Your task to perform on an android device: When is my next appointment? Image 0: 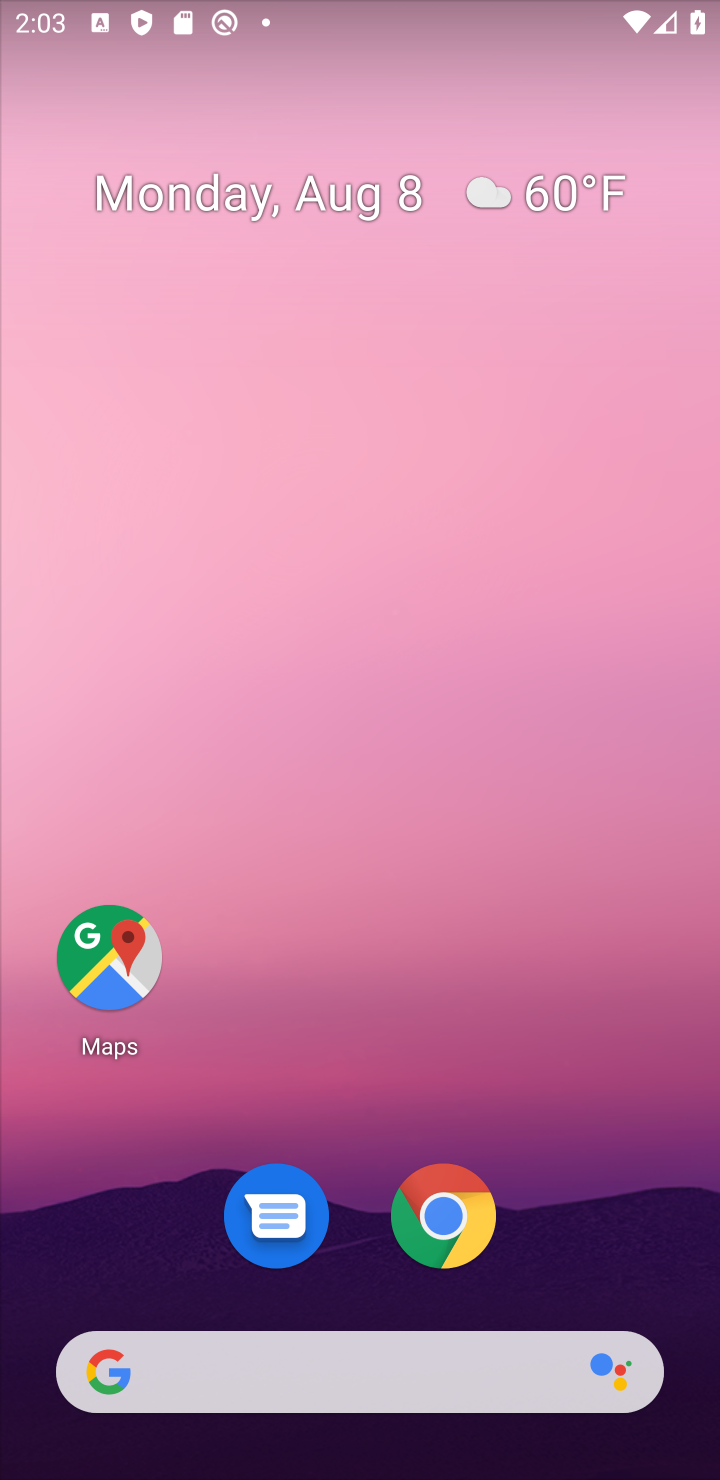
Step 0: drag from (306, 588) to (295, 112)
Your task to perform on an android device: When is my next appointment? Image 1: 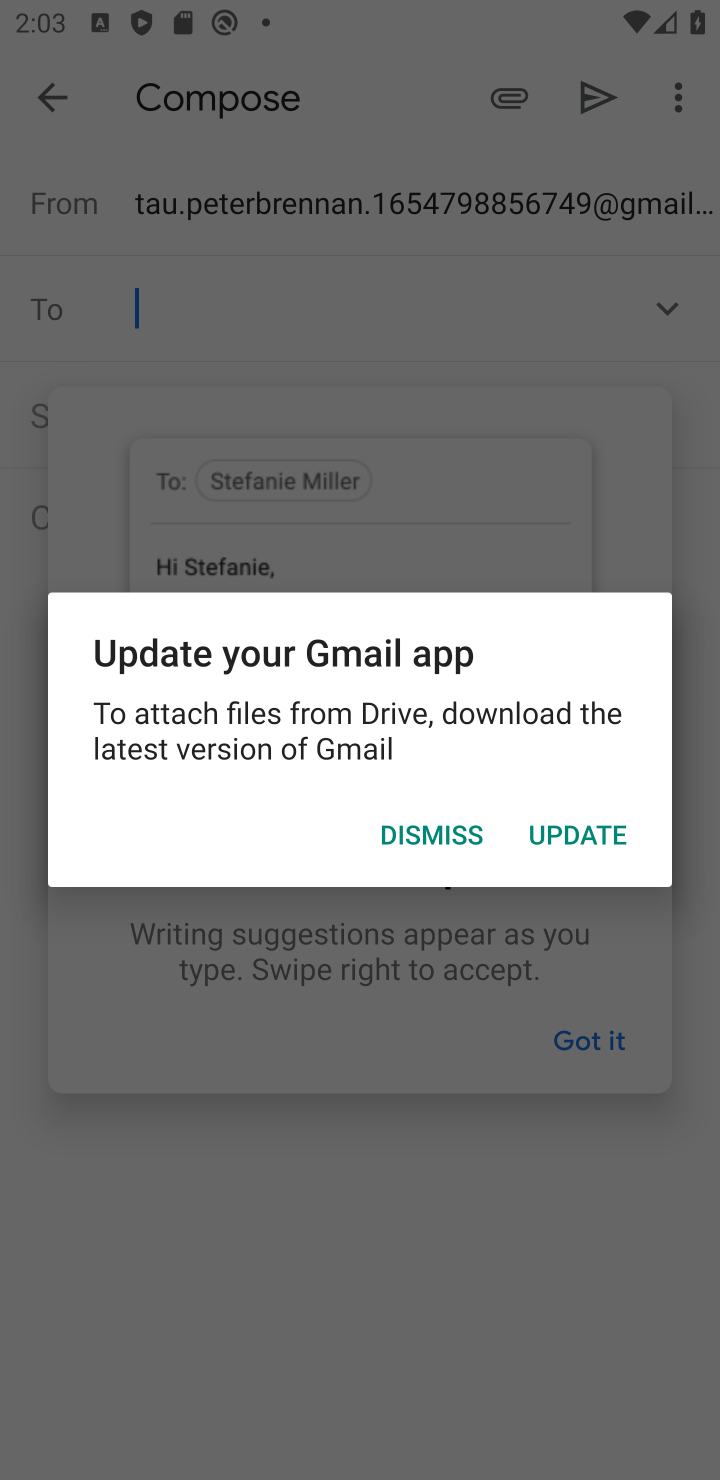
Step 1: drag from (356, 1356) to (481, 239)
Your task to perform on an android device: When is my next appointment? Image 2: 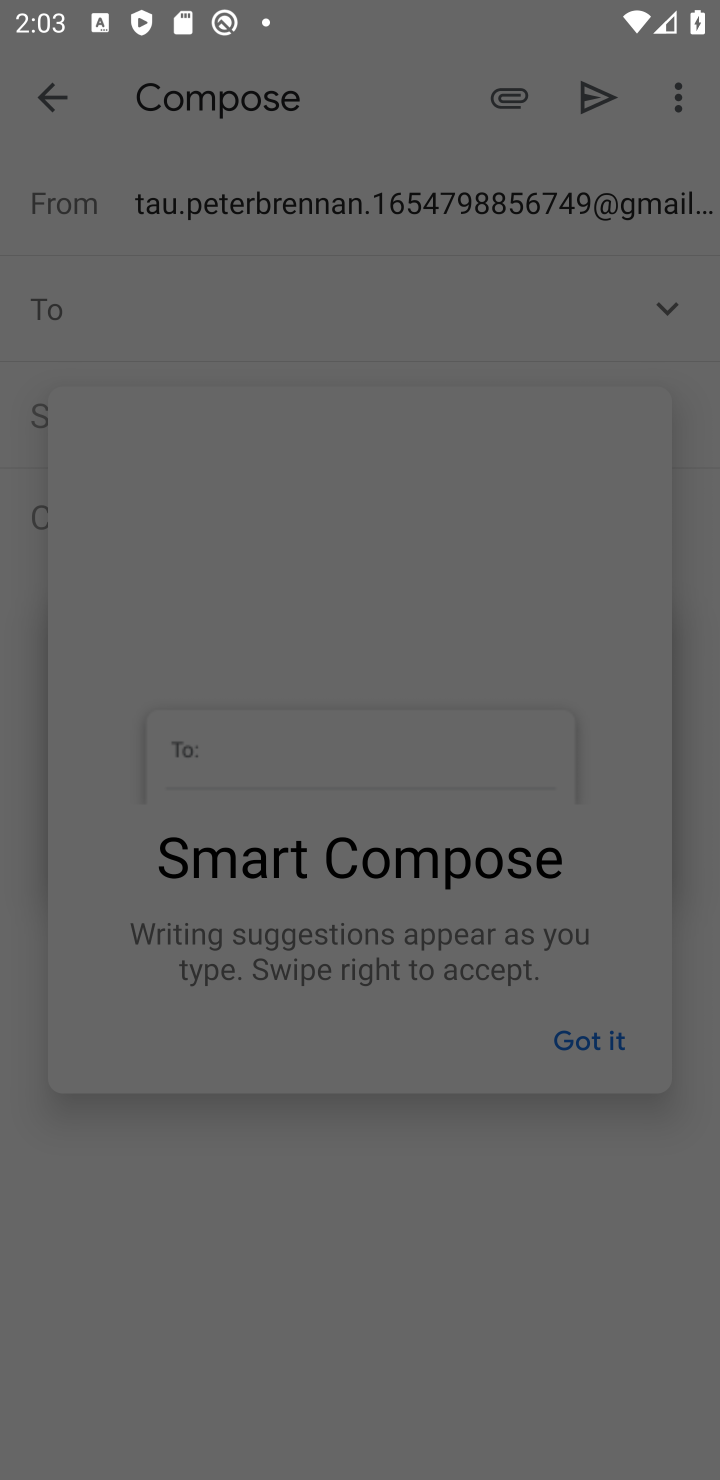
Step 2: press home button
Your task to perform on an android device: When is my next appointment? Image 3: 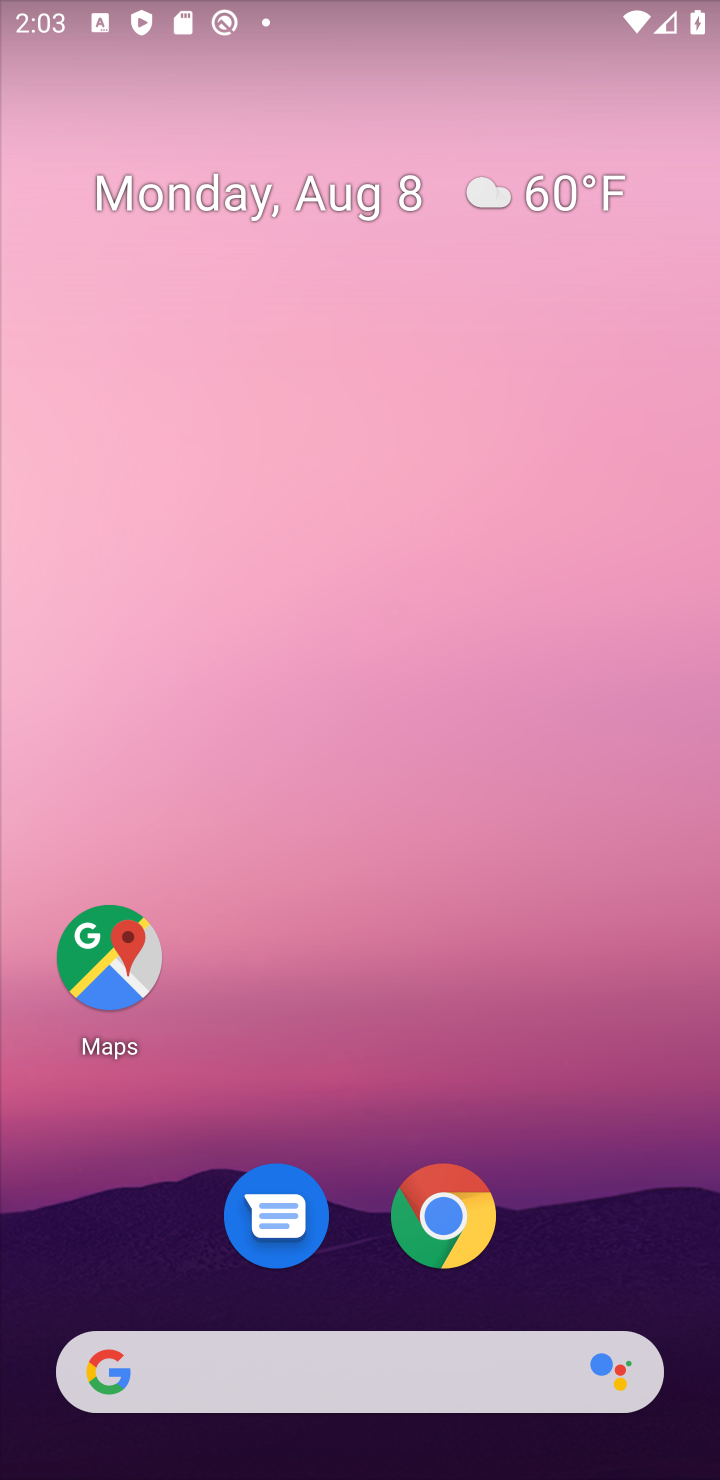
Step 3: drag from (459, 1213) to (309, 30)
Your task to perform on an android device: When is my next appointment? Image 4: 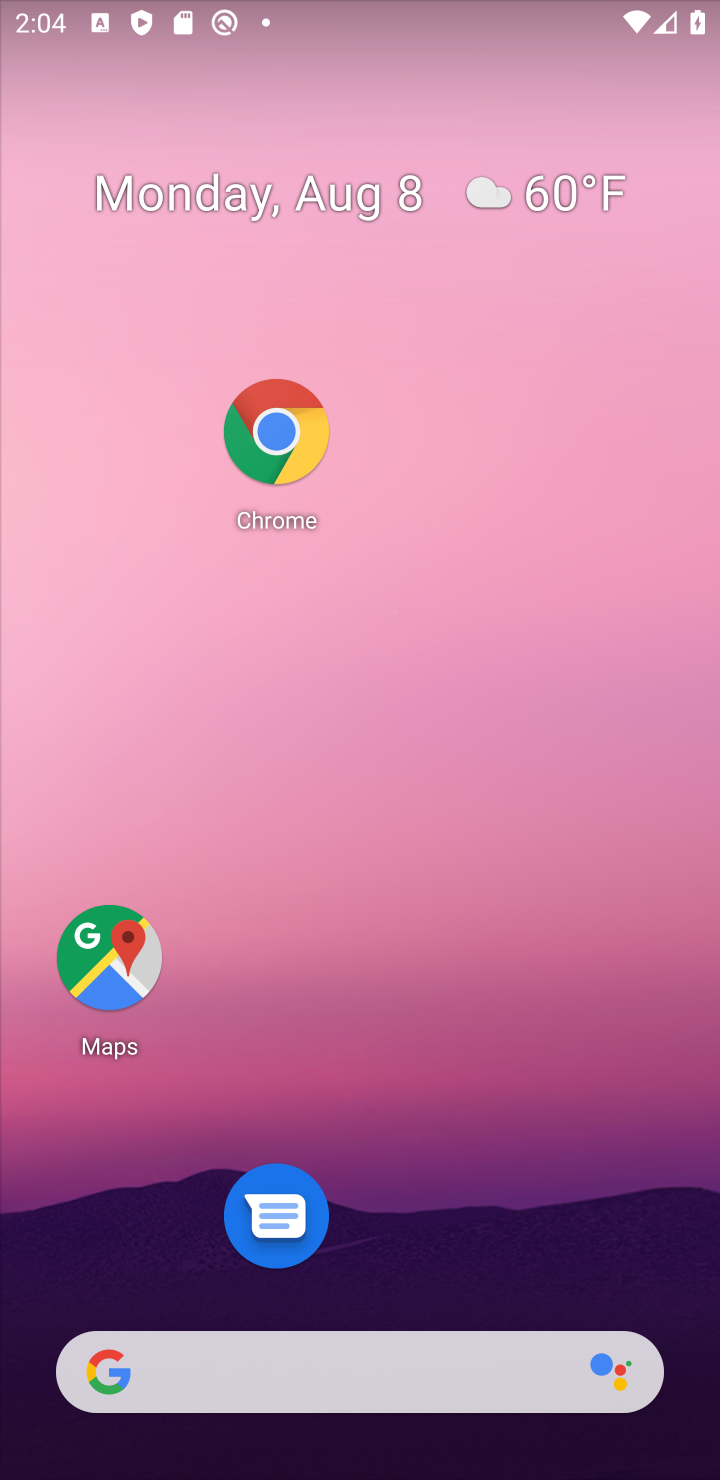
Step 4: drag from (299, 1031) to (228, 0)
Your task to perform on an android device: When is my next appointment? Image 5: 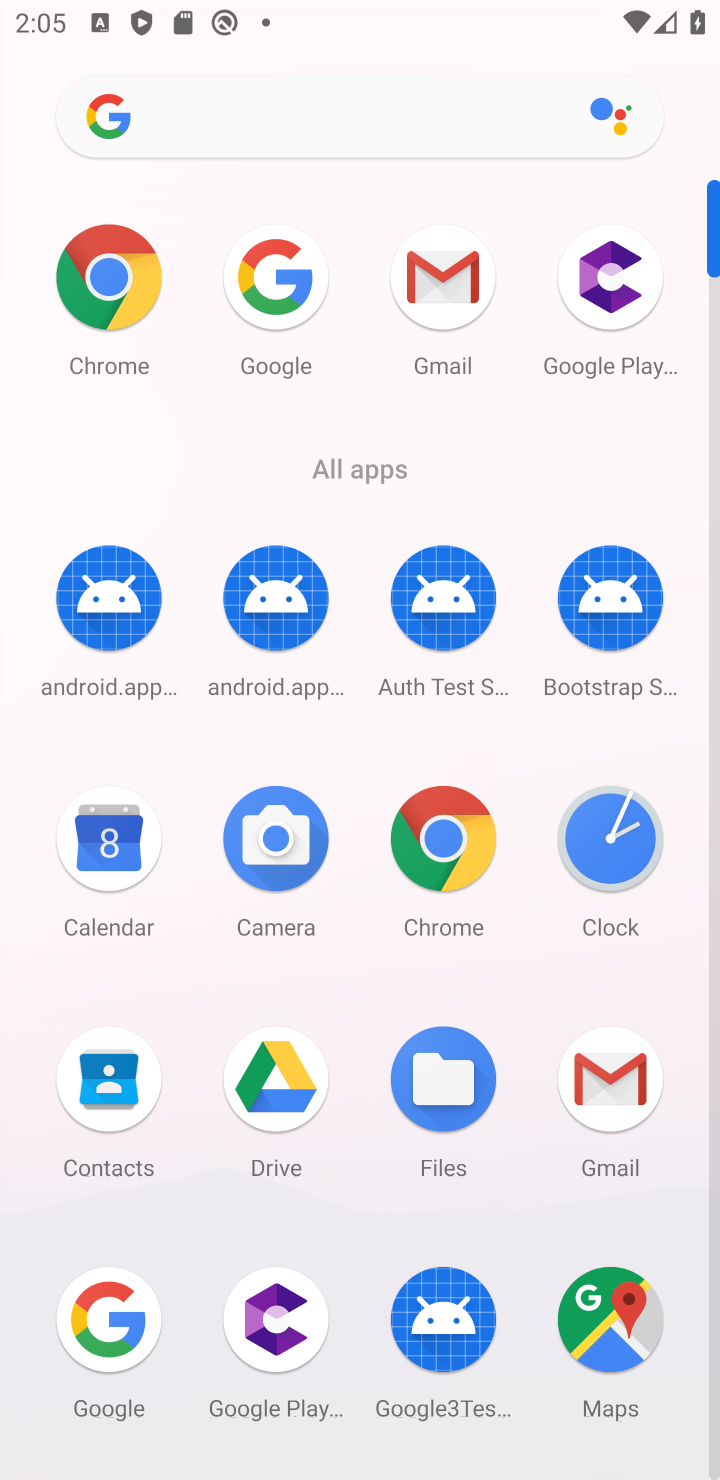
Step 5: click (89, 880)
Your task to perform on an android device: When is my next appointment? Image 6: 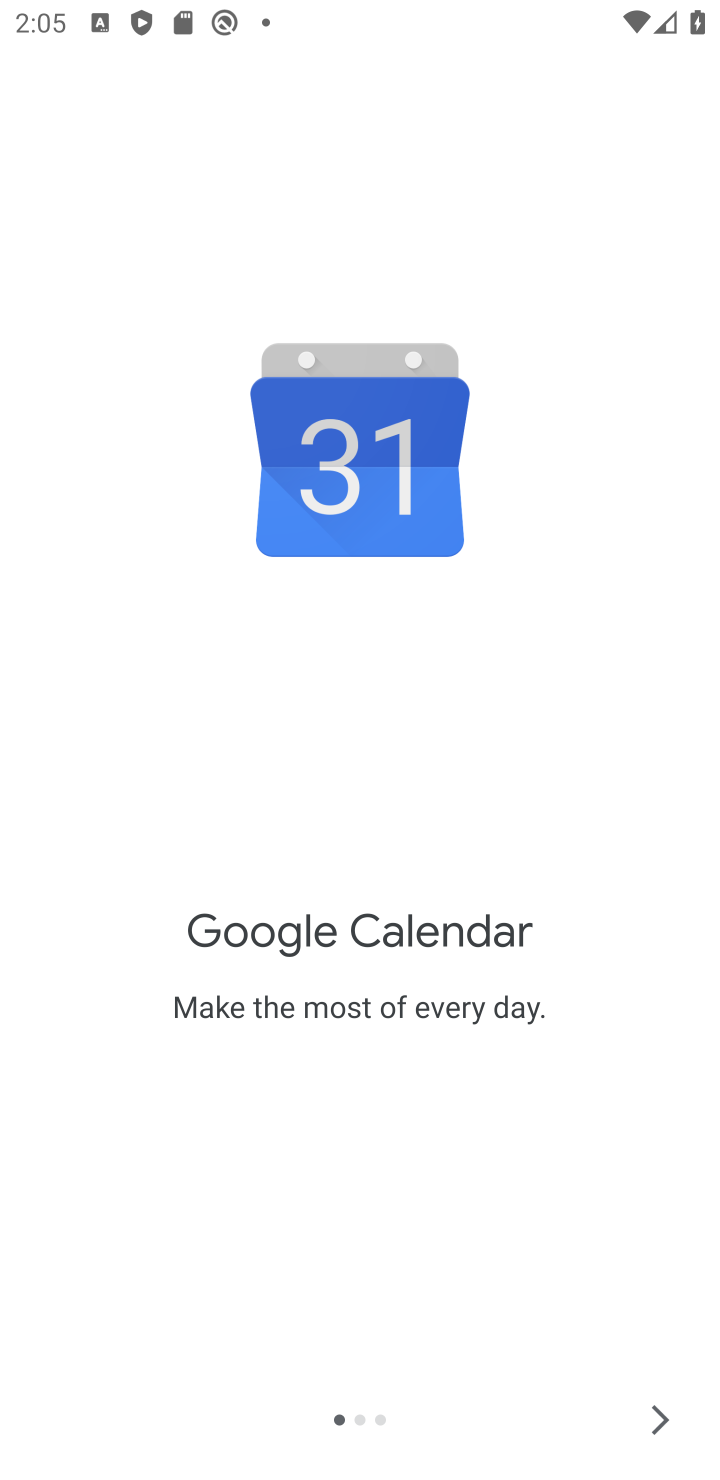
Step 6: click (663, 1416)
Your task to perform on an android device: When is my next appointment? Image 7: 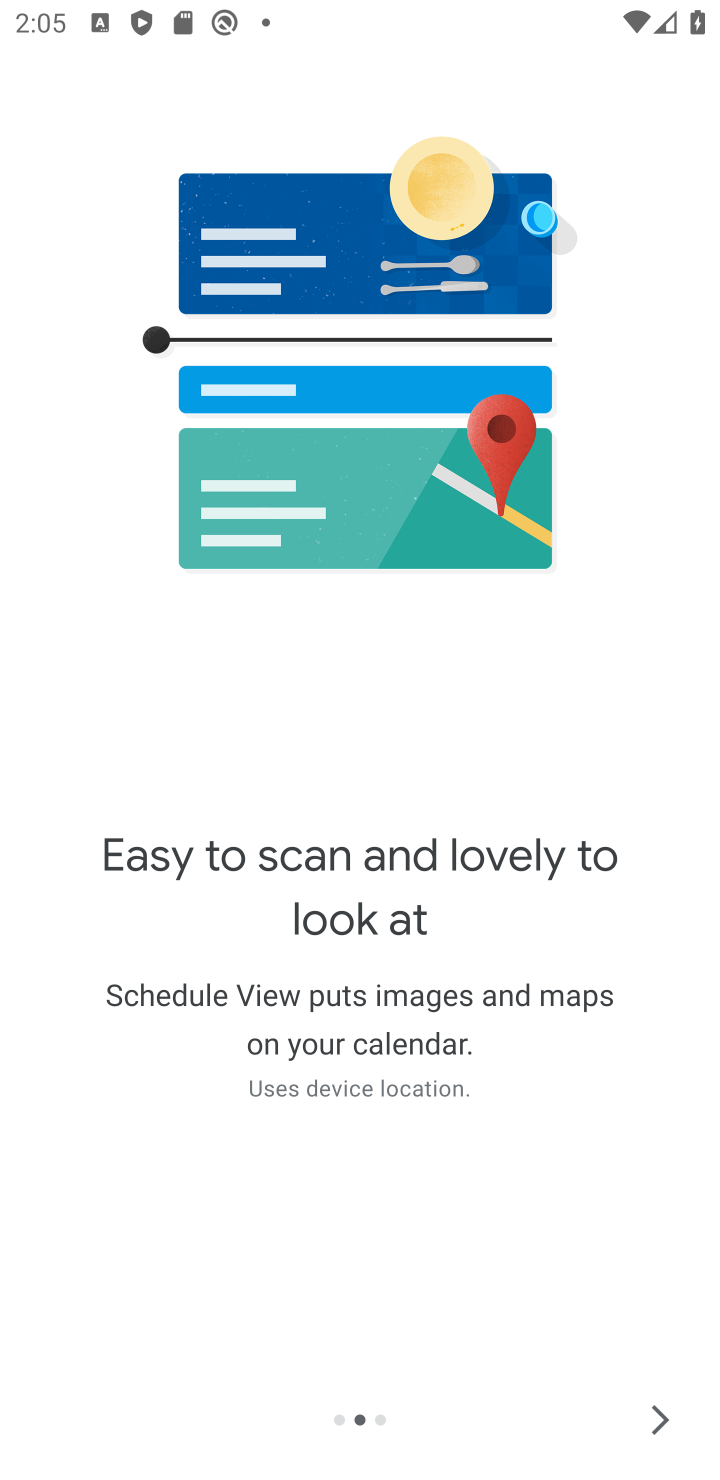
Step 7: click (658, 1421)
Your task to perform on an android device: When is my next appointment? Image 8: 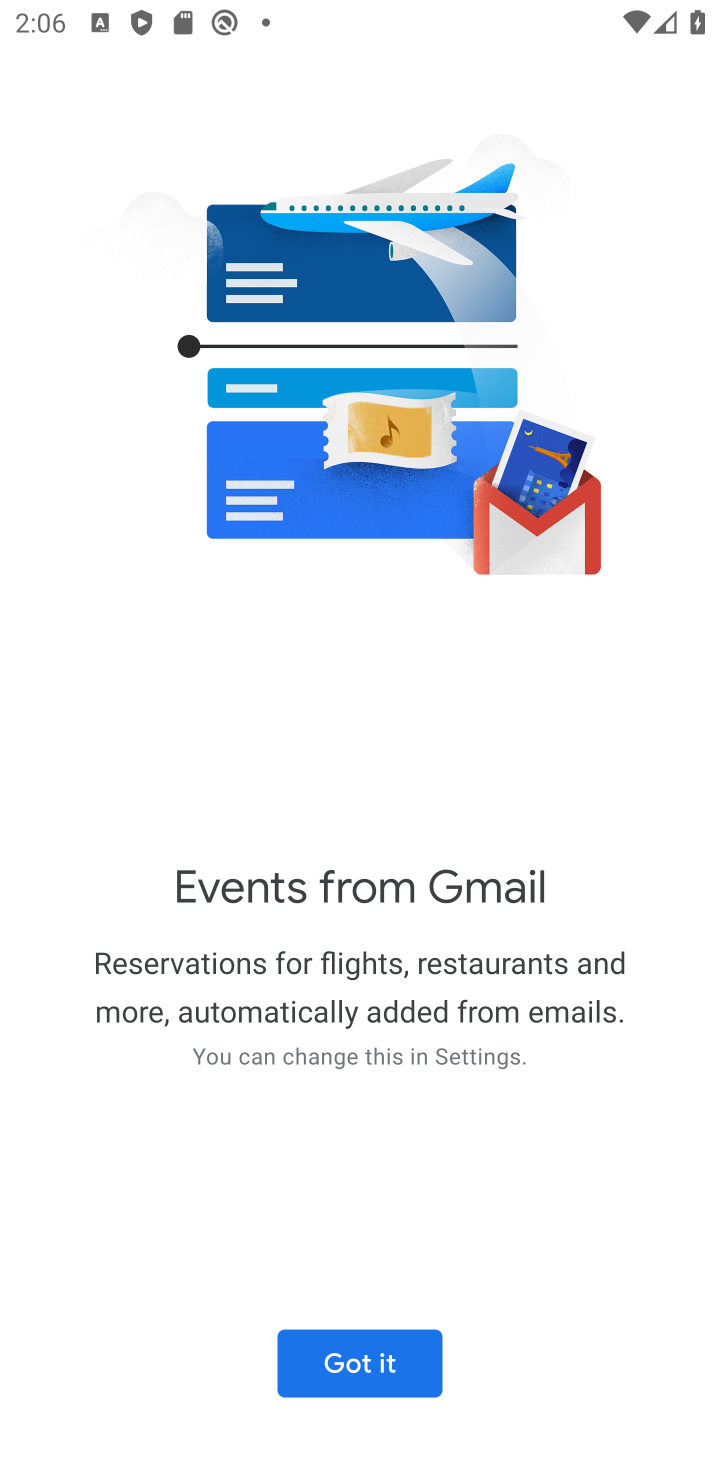
Step 8: click (345, 1369)
Your task to perform on an android device: When is my next appointment? Image 9: 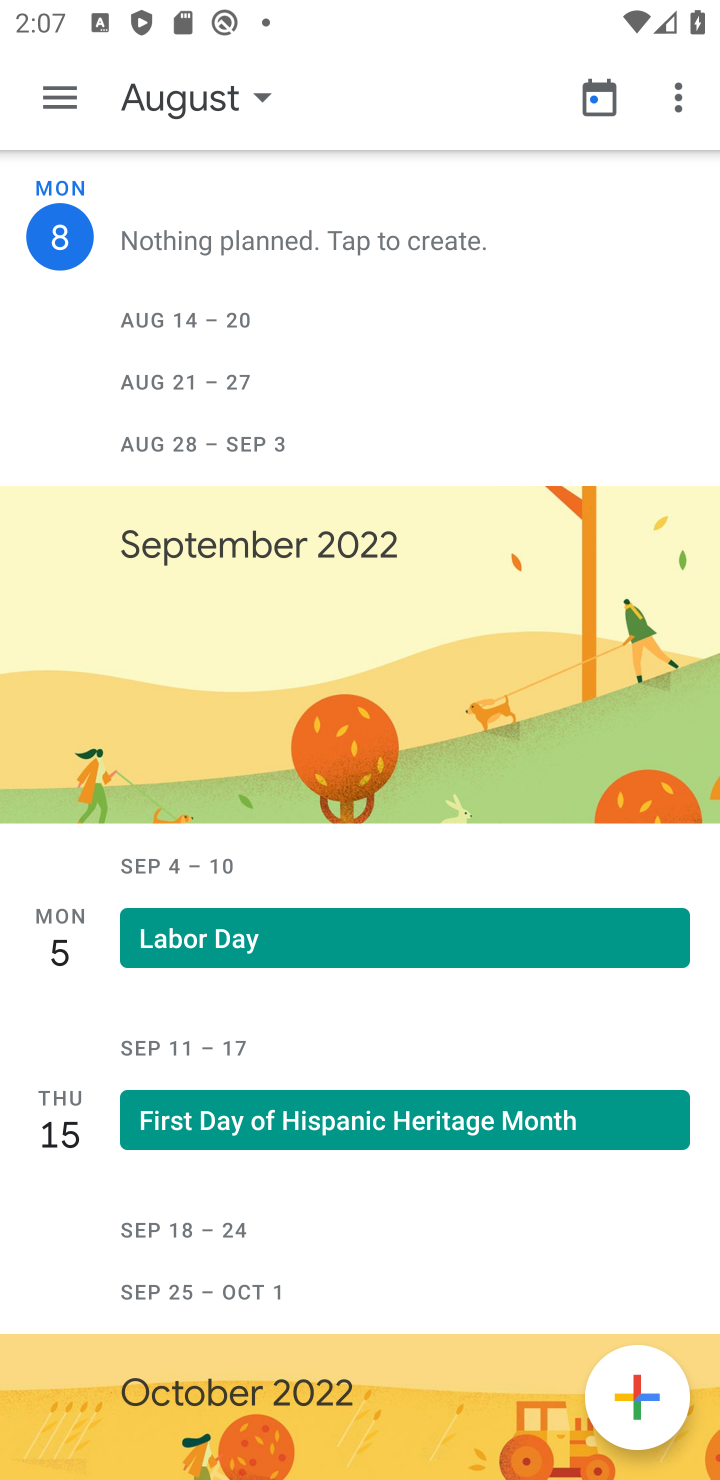
Step 9: click (171, 101)
Your task to perform on an android device: When is my next appointment? Image 10: 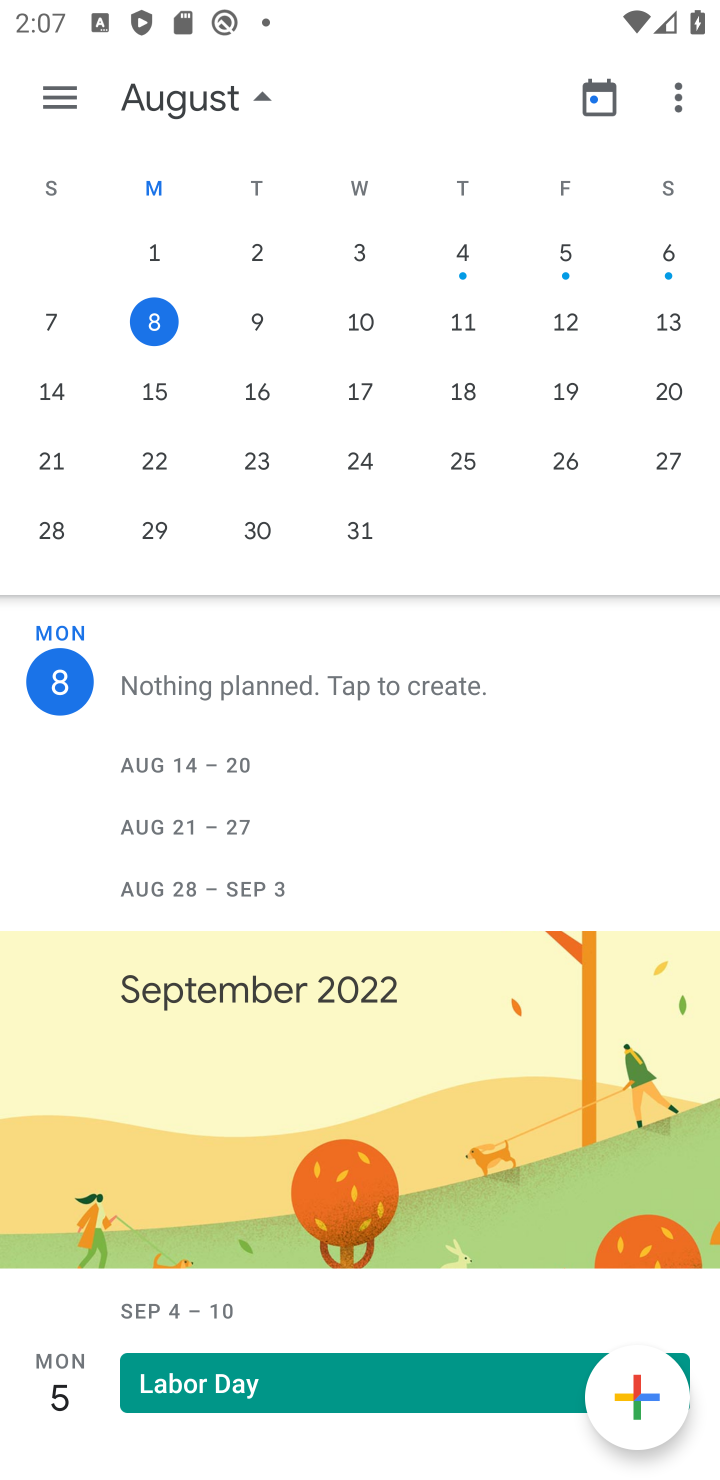
Step 10: task complete